Your task to perform on an android device: Search for "dell xps" on target.com, select the first entry, and add it to the cart. Image 0: 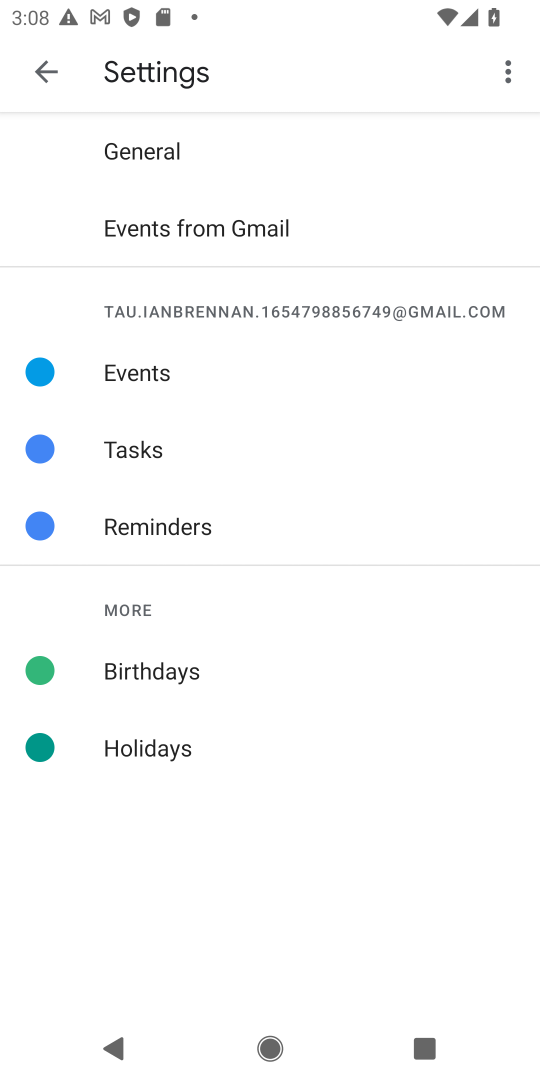
Step 0: press home button
Your task to perform on an android device: Search for "dell xps" on target.com, select the first entry, and add it to the cart. Image 1: 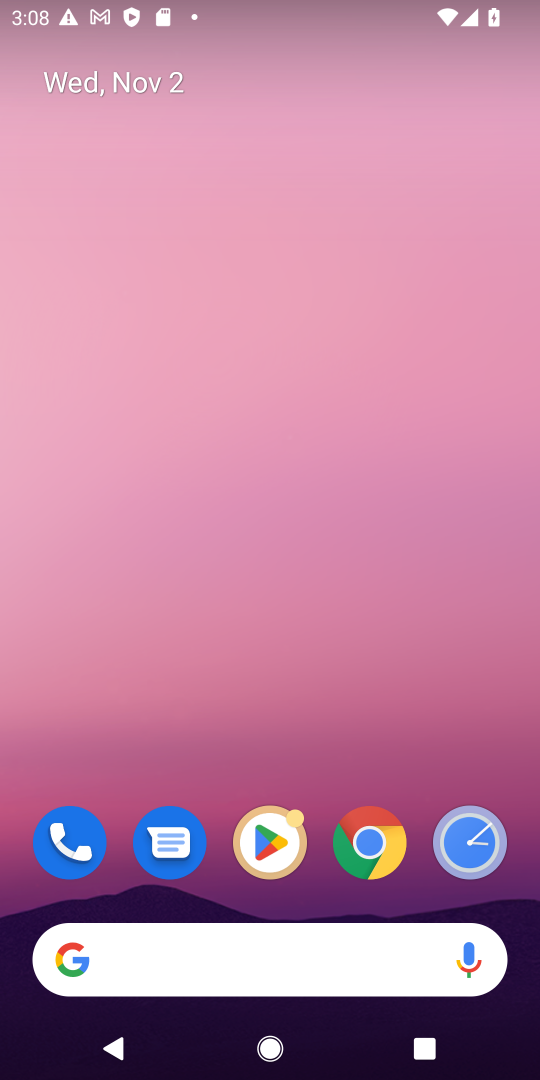
Step 1: click (360, 861)
Your task to perform on an android device: Search for "dell xps" on target.com, select the first entry, and add it to the cart. Image 2: 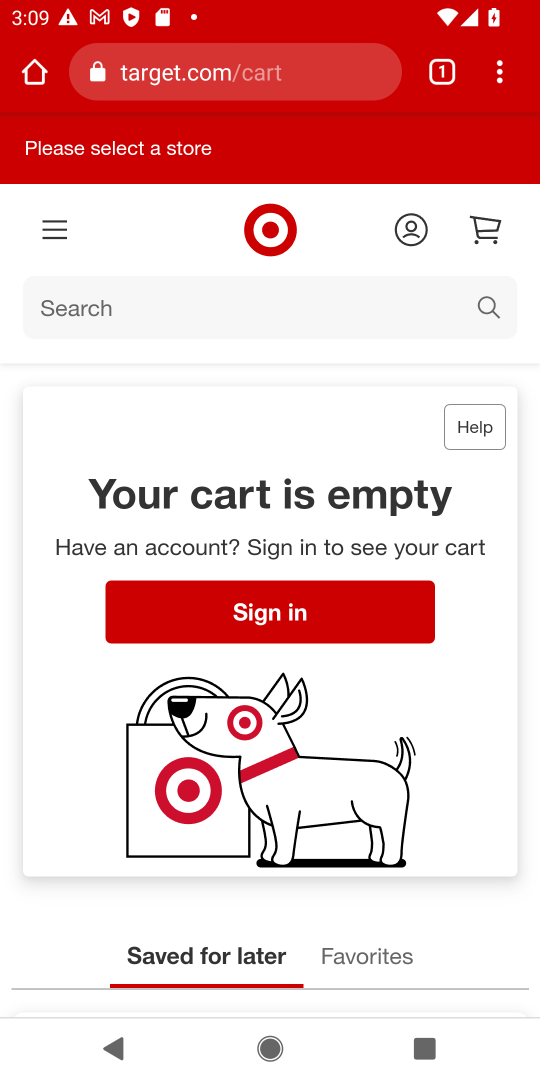
Step 2: click (217, 74)
Your task to perform on an android device: Search for "dell xps" on target.com, select the first entry, and add it to the cart. Image 3: 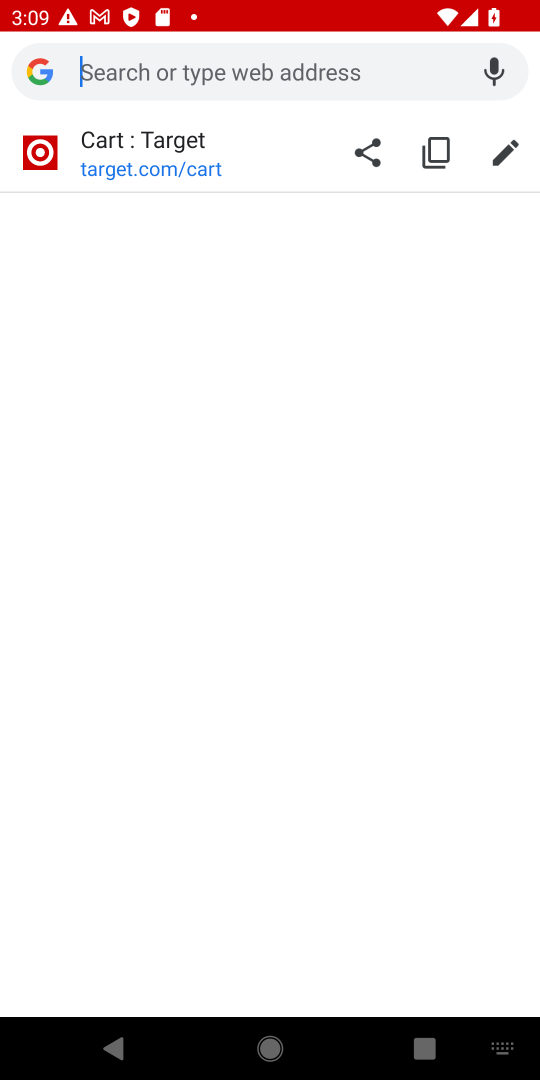
Step 3: type "target.com"
Your task to perform on an android device: Search for "dell xps" on target.com, select the first entry, and add it to the cart. Image 4: 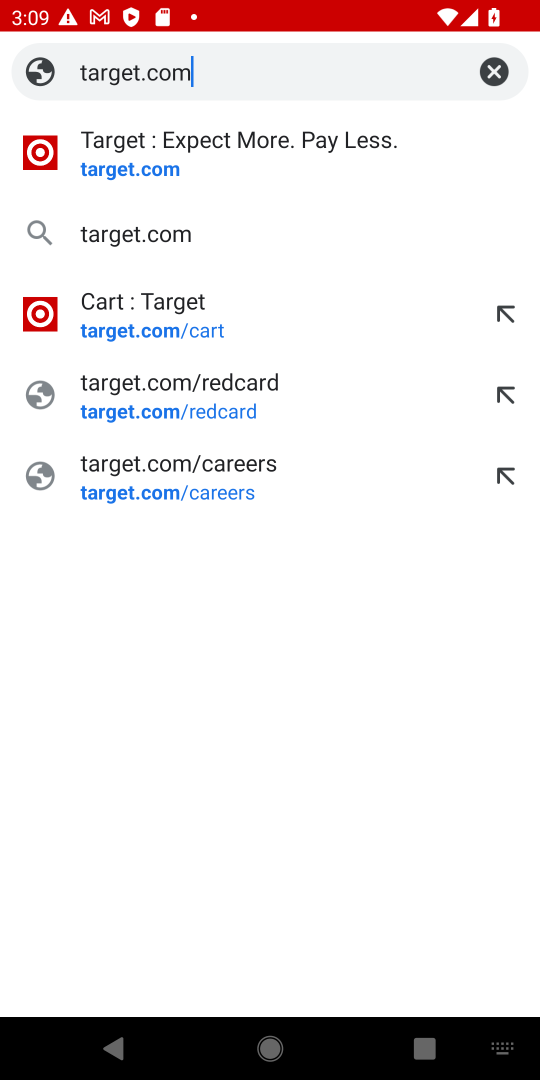
Step 4: click (249, 148)
Your task to perform on an android device: Search for "dell xps" on target.com, select the first entry, and add it to the cart. Image 5: 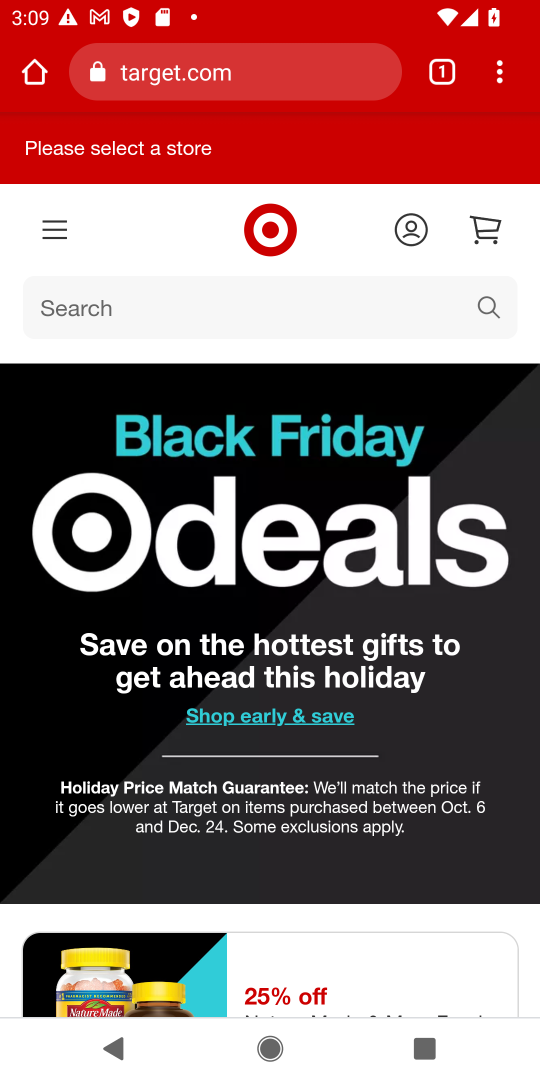
Step 5: click (381, 297)
Your task to perform on an android device: Search for "dell xps" on target.com, select the first entry, and add it to the cart. Image 6: 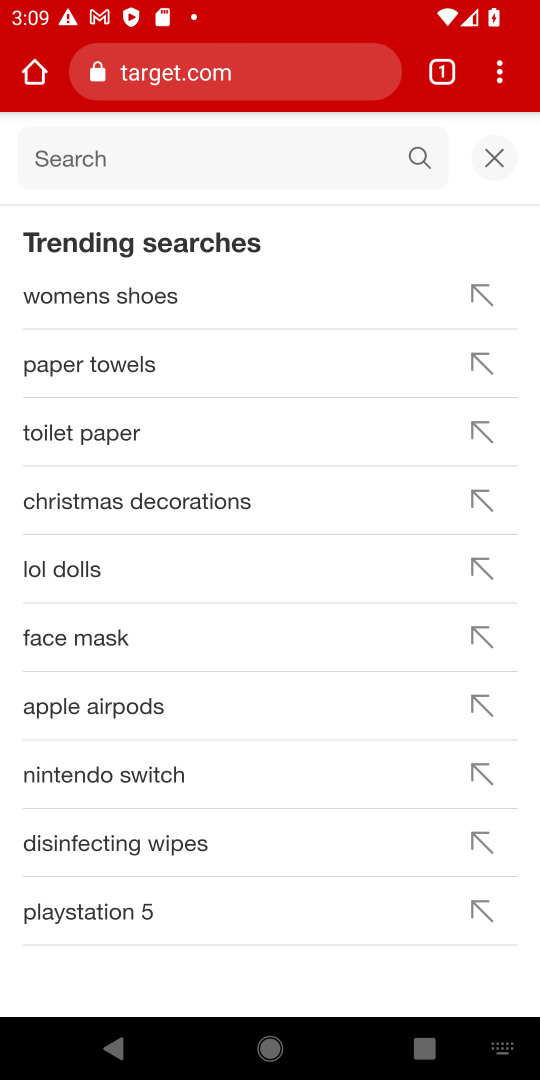
Step 6: click (221, 175)
Your task to perform on an android device: Search for "dell xps" on target.com, select the first entry, and add it to the cart. Image 7: 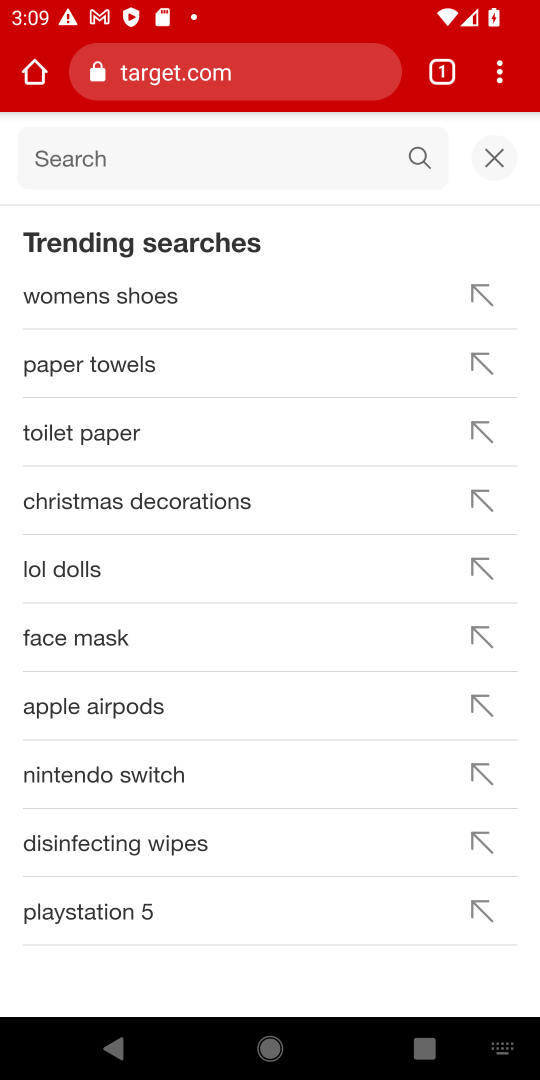
Step 7: type "dell xps"
Your task to perform on an android device: Search for "dell xps" on target.com, select the first entry, and add it to the cart. Image 8: 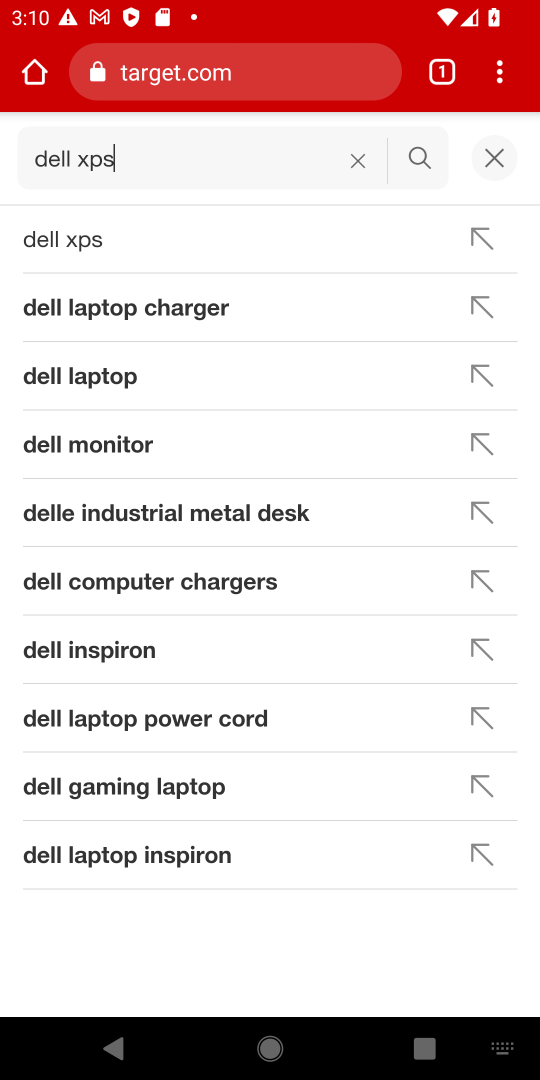
Step 8: click (65, 242)
Your task to perform on an android device: Search for "dell xps" on target.com, select the first entry, and add it to the cart. Image 9: 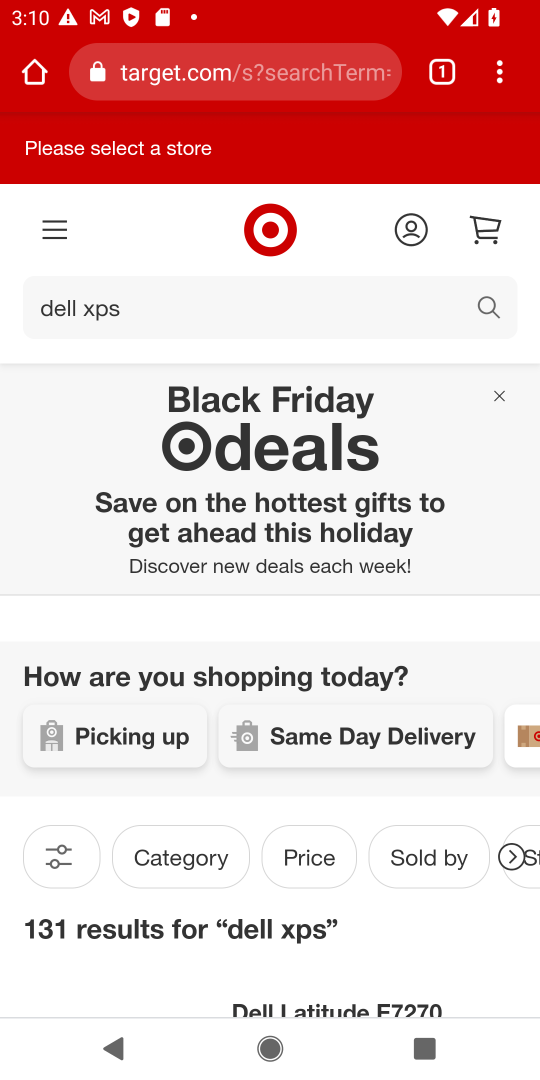
Step 9: drag from (374, 796) to (376, 541)
Your task to perform on an android device: Search for "dell xps" on target.com, select the first entry, and add it to the cart. Image 10: 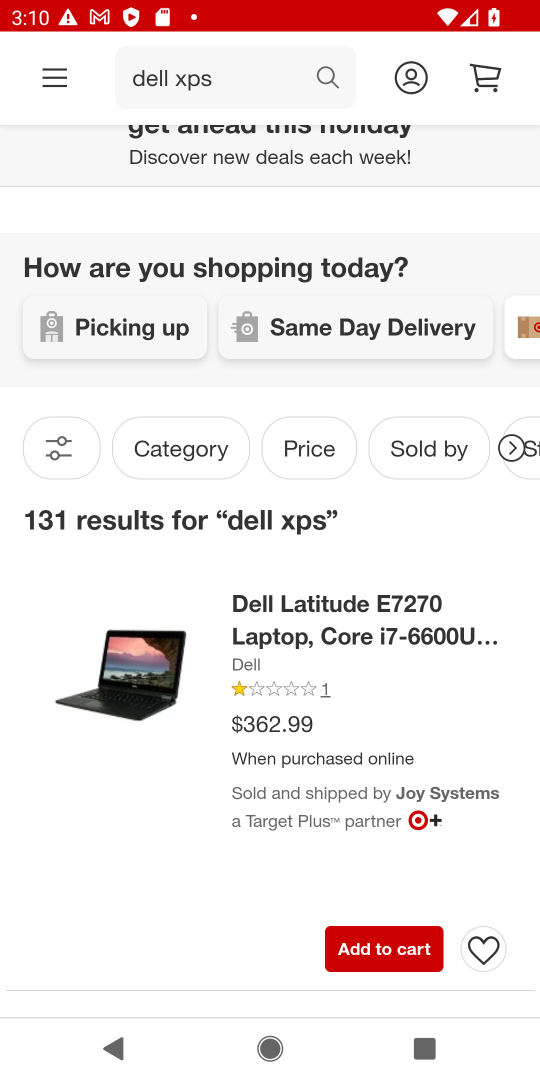
Step 10: click (311, 631)
Your task to perform on an android device: Search for "dell xps" on target.com, select the first entry, and add it to the cart. Image 11: 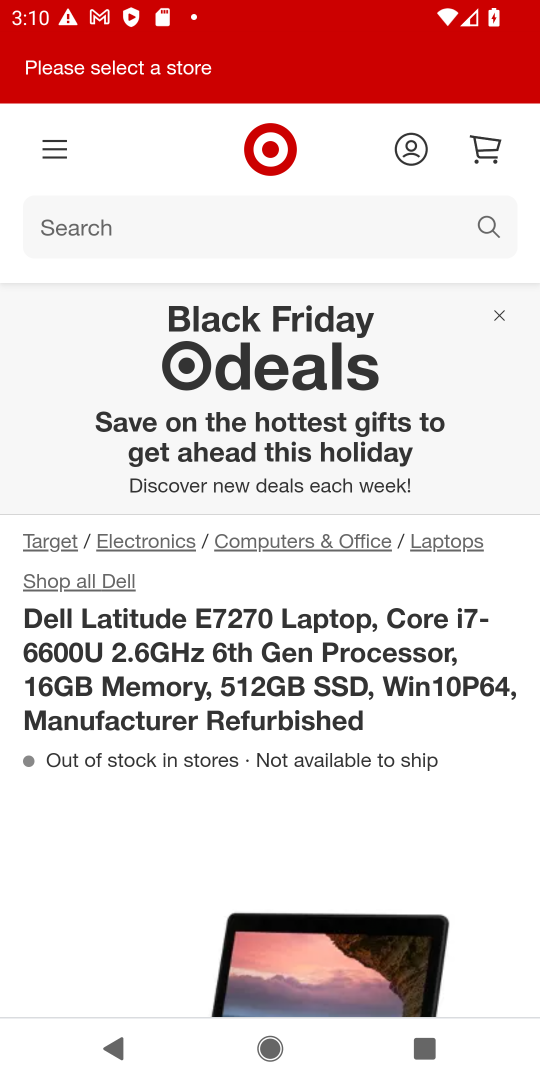
Step 11: drag from (310, 848) to (324, 334)
Your task to perform on an android device: Search for "dell xps" on target.com, select the first entry, and add it to the cart. Image 12: 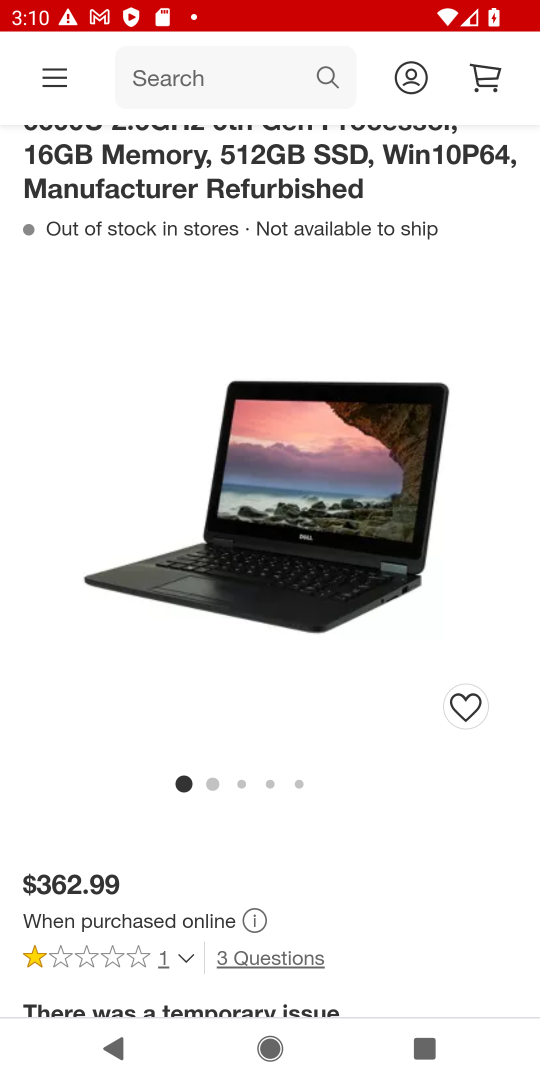
Step 12: drag from (316, 843) to (324, 330)
Your task to perform on an android device: Search for "dell xps" on target.com, select the first entry, and add it to the cart. Image 13: 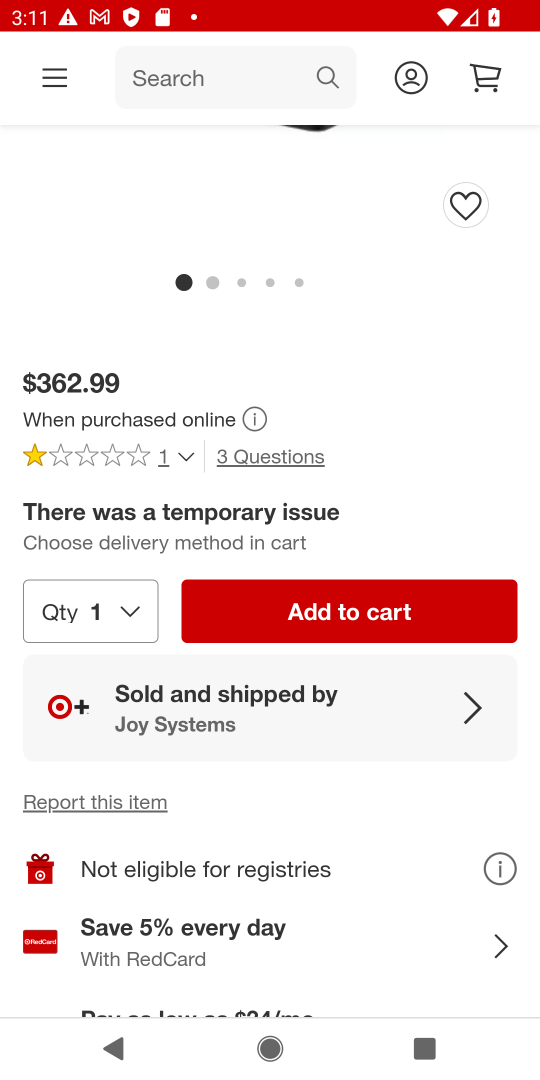
Step 13: click (306, 607)
Your task to perform on an android device: Search for "dell xps" on target.com, select the first entry, and add it to the cart. Image 14: 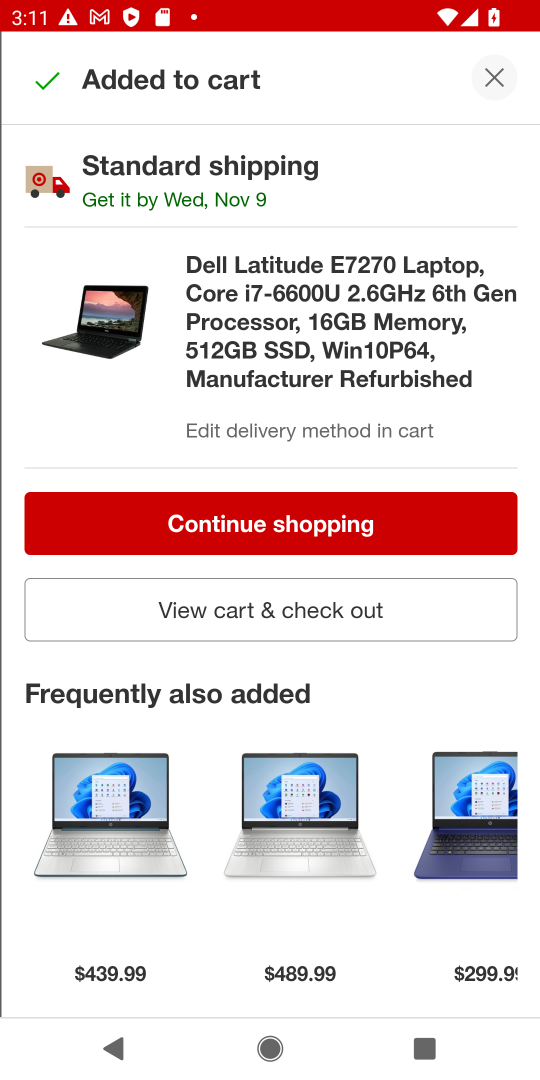
Step 14: task complete